Your task to perform on an android device: Open location settings Image 0: 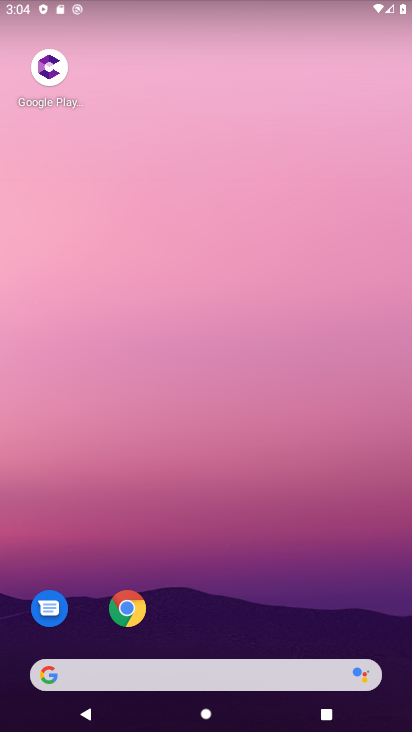
Step 0: drag from (204, 623) to (285, 20)
Your task to perform on an android device: Open location settings Image 1: 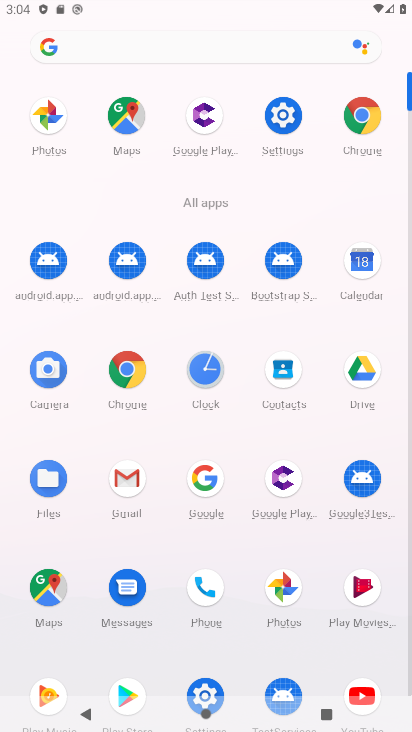
Step 1: click (286, 129)
Your task to perform on an android device: Open location settings Image 2: 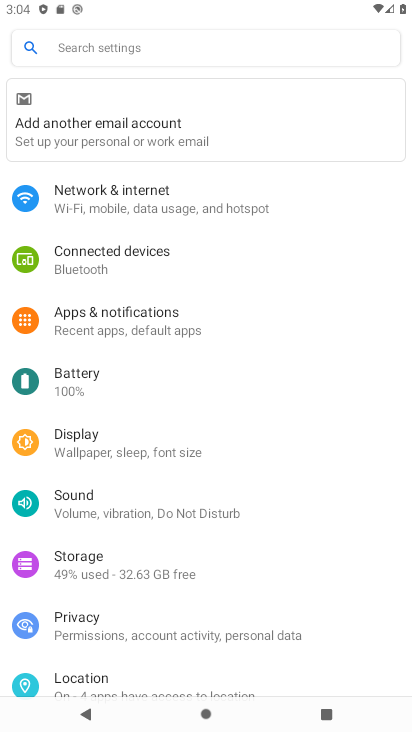
Step 2: click (95, 682)
Your task to perform on an android device: Open location settings Image 3: 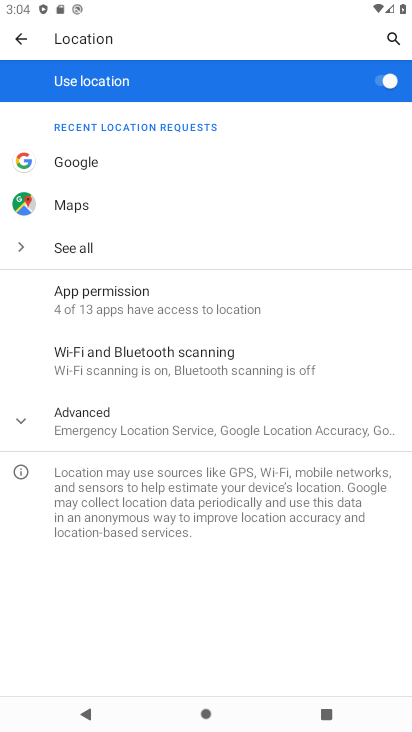
Step 3: task complete